Your task to perform on an android device: Search for custom t-shirts on Etsy. Image 0: 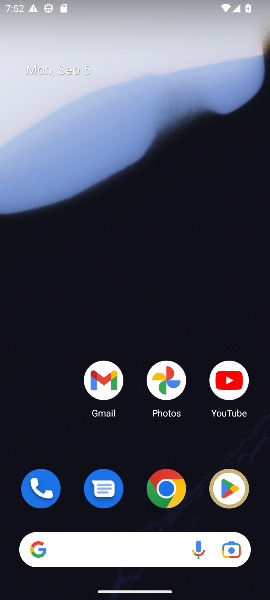
Step 0: click (174, 487)
Your task to perform on an android device: Search for custom t-shirts on Etsy. Image 1: 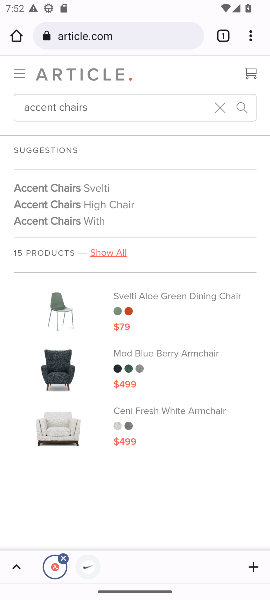
Step 1: click (164, 35)
Your task to perform on an android device: Search for custom t-shirts on Etsy. Image 2: 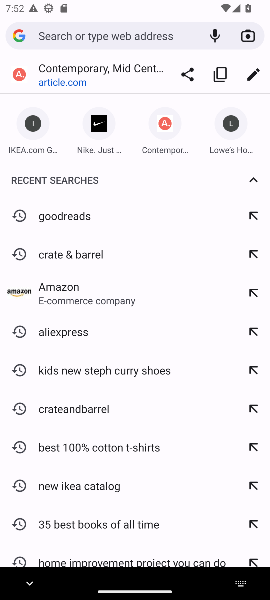
Step 2: type "etsy"
Your task to perform on an android device: Search for custom t-shirts on Etsy. Image 3: 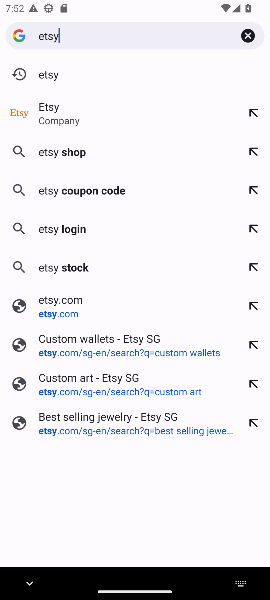
Step 3: press enter
Your task to perform on an android device: Search for custom t-shirts on Etsy. Image 4: 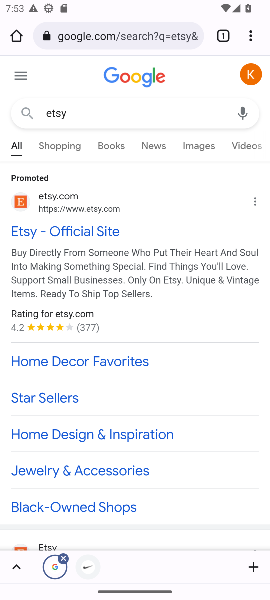
Step 4: click (65, 237)
Your task to perform on an android device: Search for custom t-shirts on Etsy. Image 5: 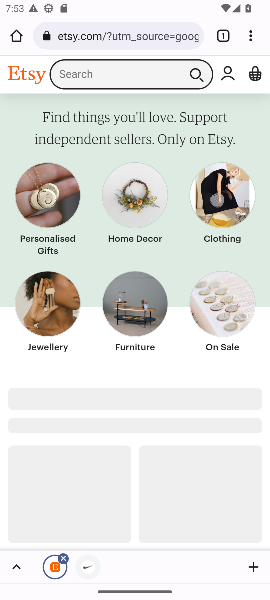
Step 5: click (121, 70)
Your task to perform on an android device: Search for custom t-shirts on Etsy. Image 6: 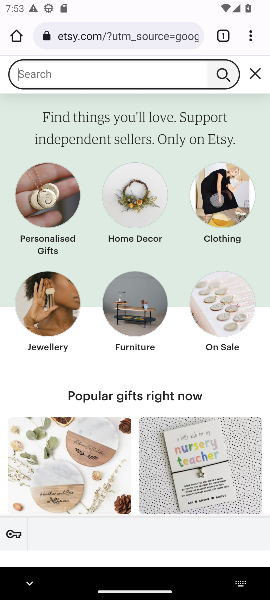
Step 6: type "custom t-shirts"
Your task to perform on an android device: Search for custom t-shirts on Etsy. Image 7: 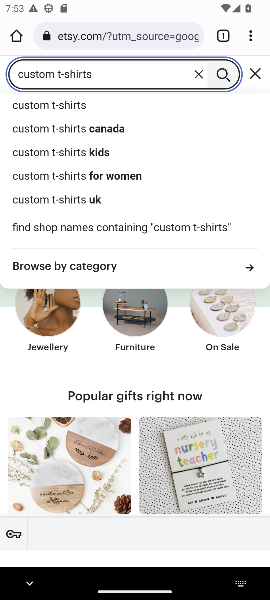
Step 7: press enter
Your task to perform on an android device: Search for custom t-shirts on Etsy. Image 8: 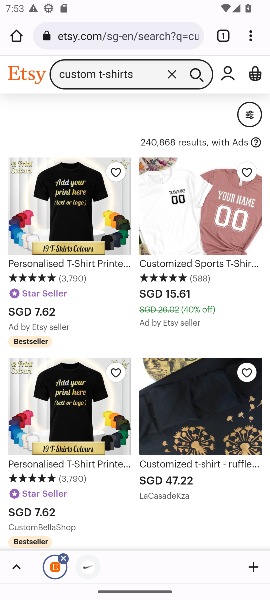
Step 8: task complete